Your task to perform on an android device: check android version Image 0: 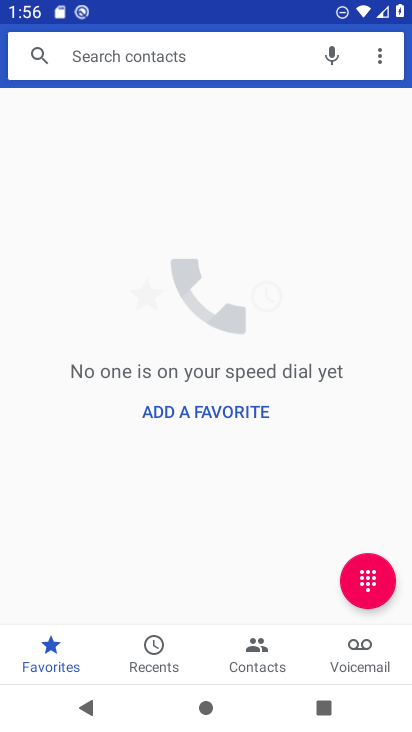
Step 0: press home button
Your task to perform on an android device: check android version Image 1: 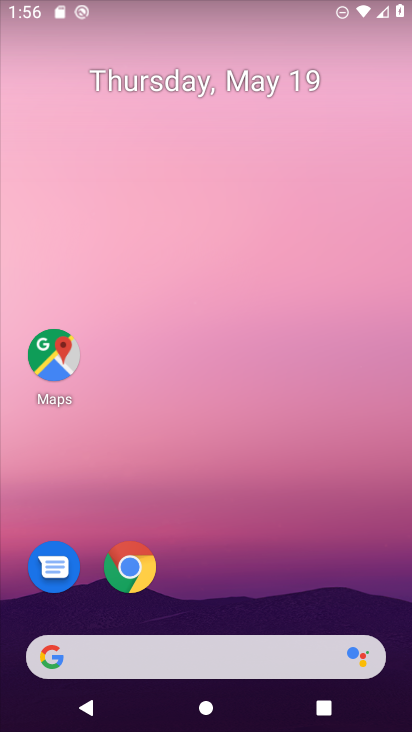
Step 1: drag from (256, 513) to (286, 65)
Your task to perform on an android device: check android version Image 2: 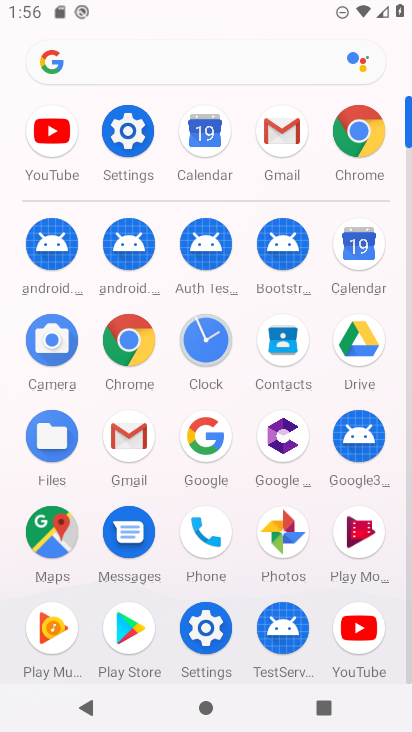
Step 2: click (136, 133)
Your task to perform on an android device: check android version Image 3: 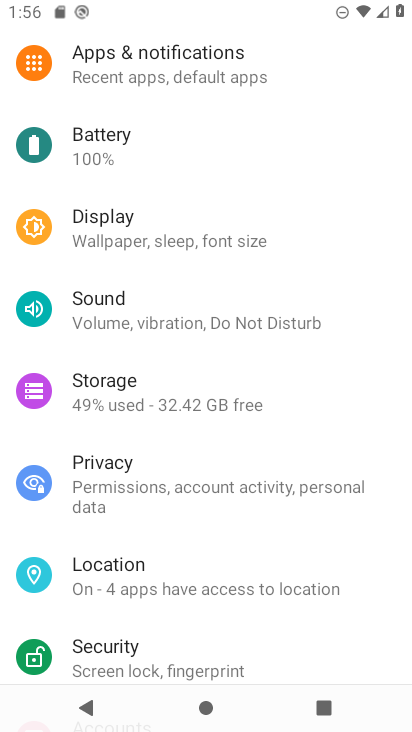
Step 3: drag from (253, 509) to (243, 136)
Your task to perform on an android device: check android version Image 4: 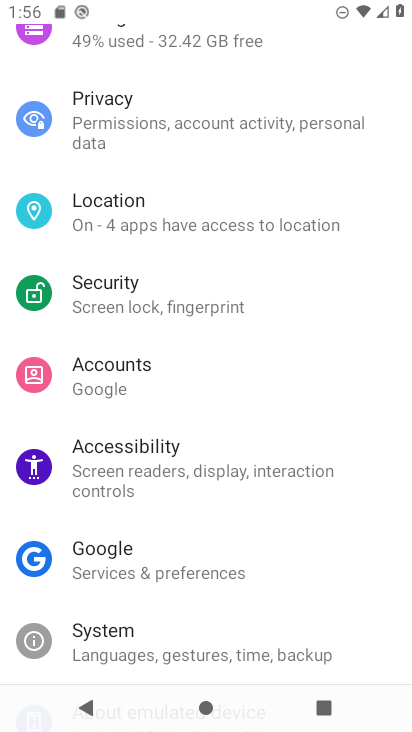
Step 4: drag from (226, 360) to (221, 104)
Your task to perform on an android device: check android version Image 5: 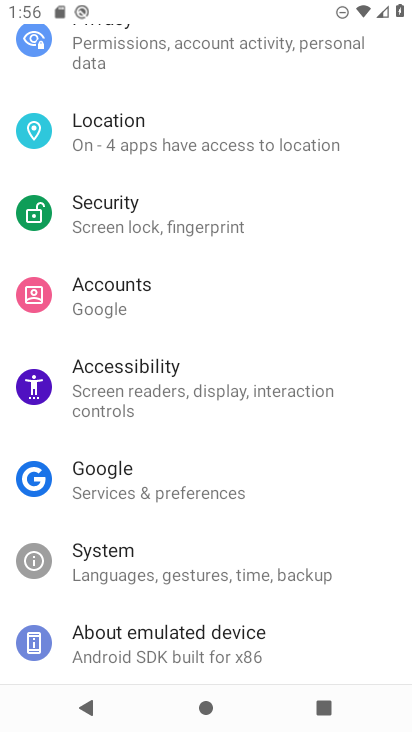
Step 5: click (226, 644)
Your task to perform on an android device: check android version Image 6: 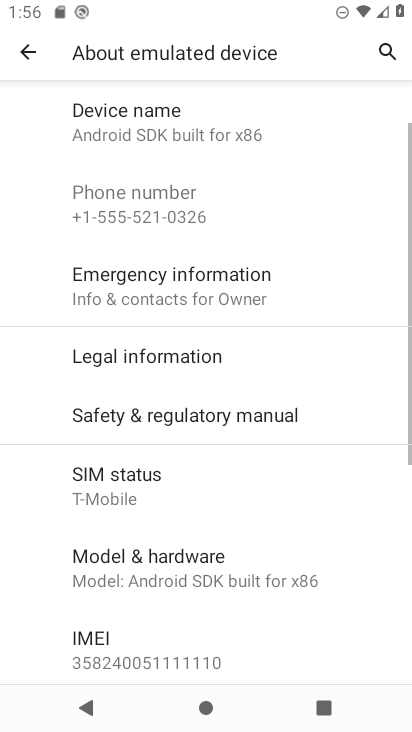
Step 6: drag from (252, 494) to (244, 209)
Your task to perform on an android device: check android version Image 7: 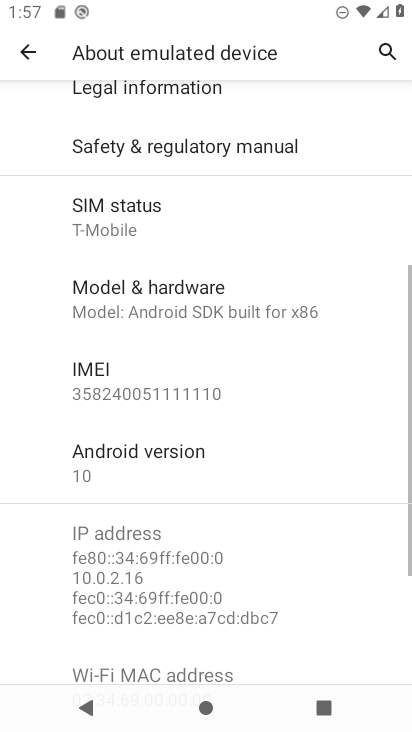
Step 7: click (193, 468)
Your task to perform on an android device: check android version Image 8: 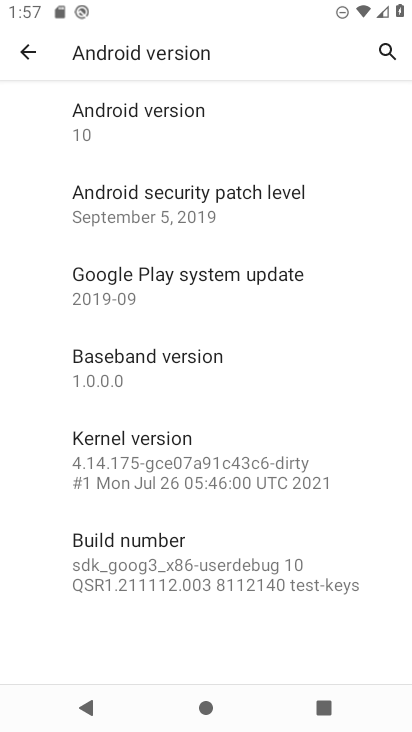
Step 8: task complete